Your task to perform on an android device: Go to Google Image 0: 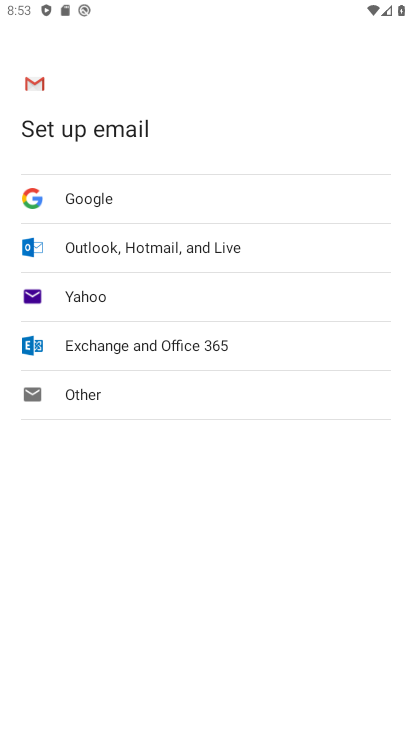
Step 0: press home button
Your task to perform on an android device: Go to Google Image 1: 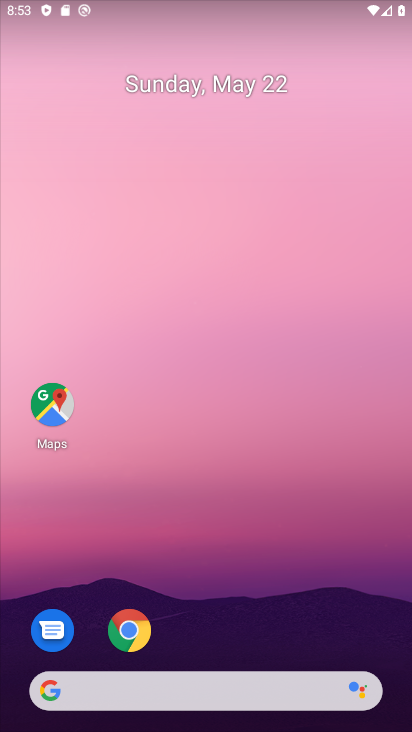
Step 1: drag from (394, 659) to (300, 217)
Your task to perform on an android device: Go to Google Image 2: 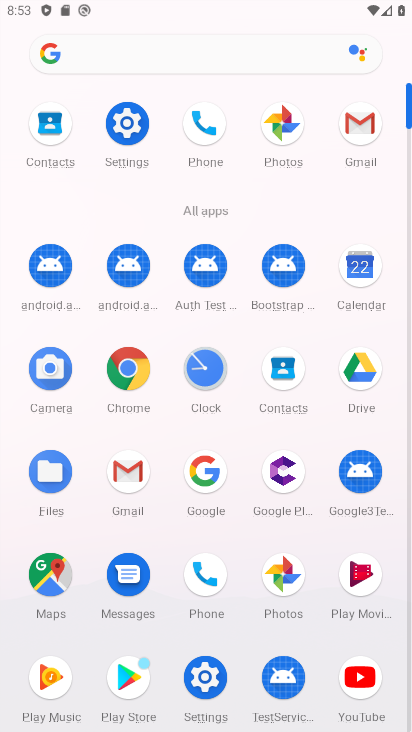
Step 2: click (208, 474)
Your task to perform on an android device: Go to Google Image 3: 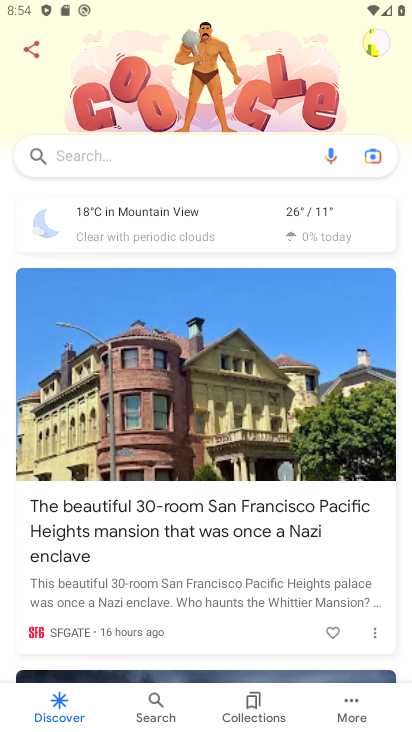
Step 3: task complete